Your task to perform on an android device: turn on notifications settings in the gmail app Image 0: 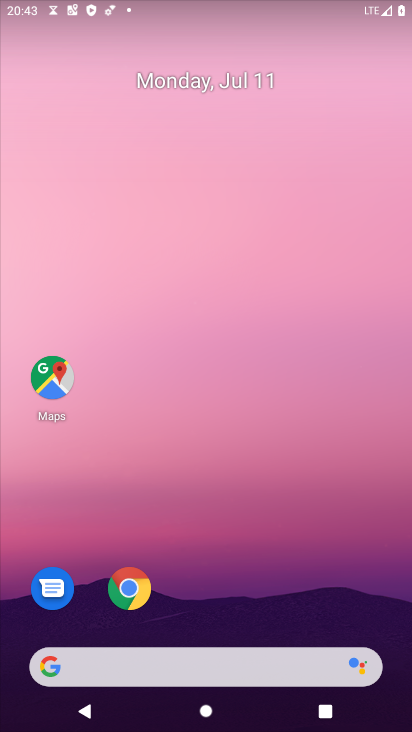
Step 0: press home button
Your task to perform on an android device: turn on notifications settings in the gmail app Image 1: 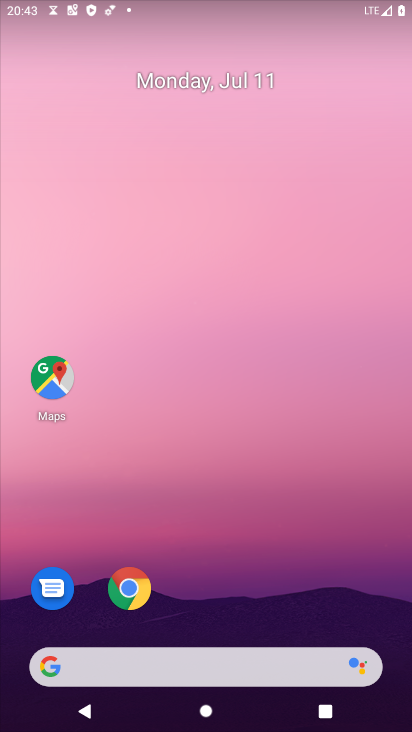
Step 1: drag from (212, 614) to (248, 63)
Your task to perform on an android device: turn on notifications settings in the gmail app Image 2: 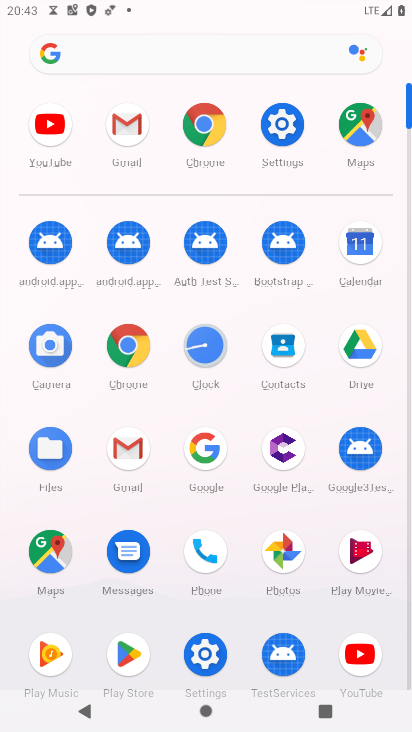
Step 2: click (126, 125)
Your task to perform on an android device: turn on notifications settings in the gmail app Image 3: 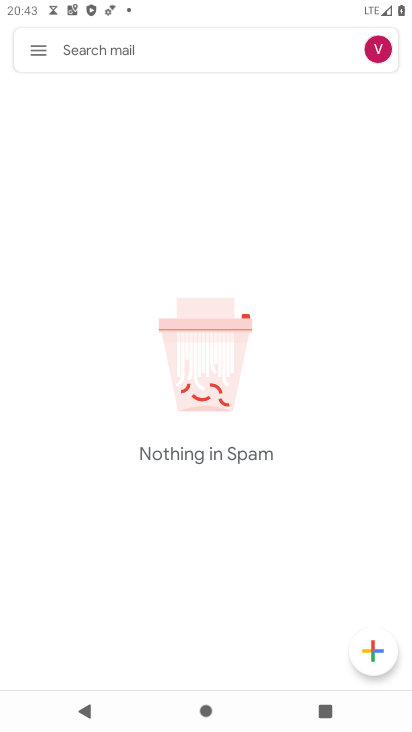
Step 3: click (30, 50)
Your task to perform on an android device: turn on notifications settings in the gmail app Image 4: 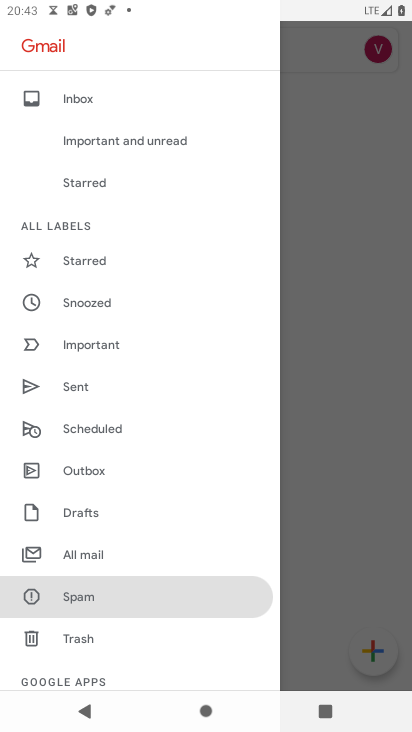
Step 4: drag from (176, 657) to (169, 321)
Your task to perform on an android device: turn on notifications settings in the gmail app Image 5: 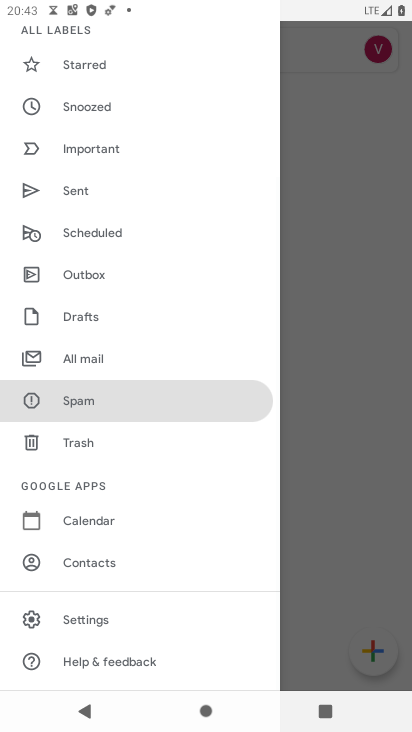
Step 5: click (95, 620)
Your task to perform on an android device: turn on notifications settings in the gmail app Image 6: 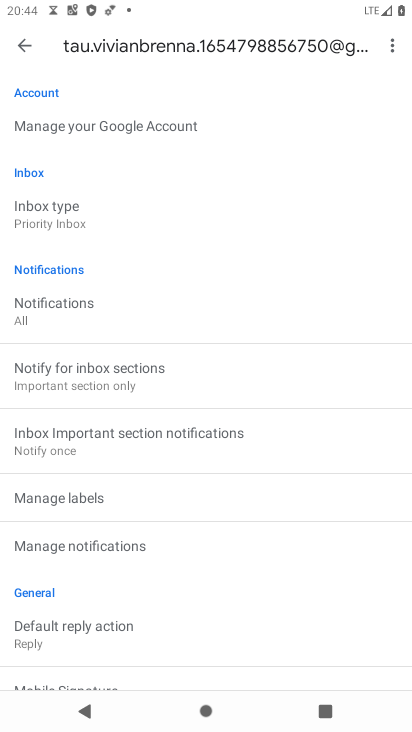
Step 6: click (72, 547)
Your task to perform on an android device: turn on notifications settings in the gmail app Image 7: 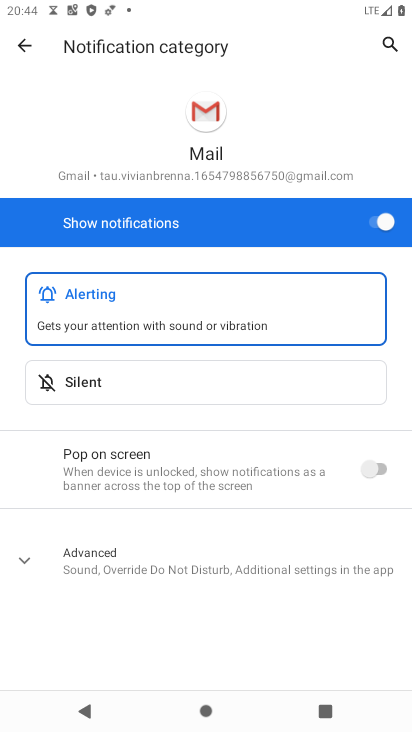
Step 7: task complete